Your task to perform on an android device: Search for Mexican restaurants on Maps Image 0: 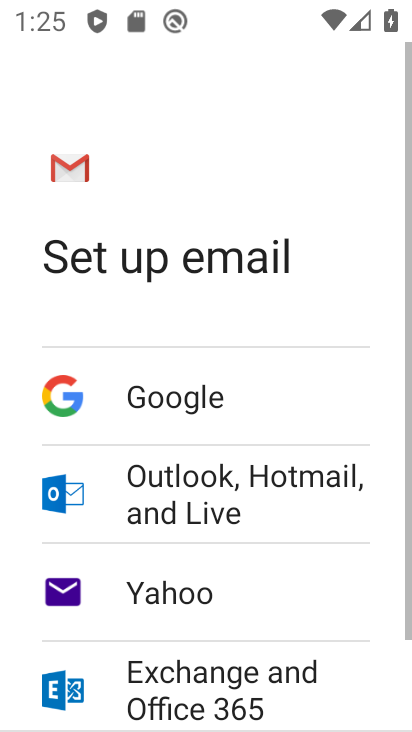
Step 0: press home button
Your task to perform on an android device: Search for Mexican restaurants on Maps Image 1: 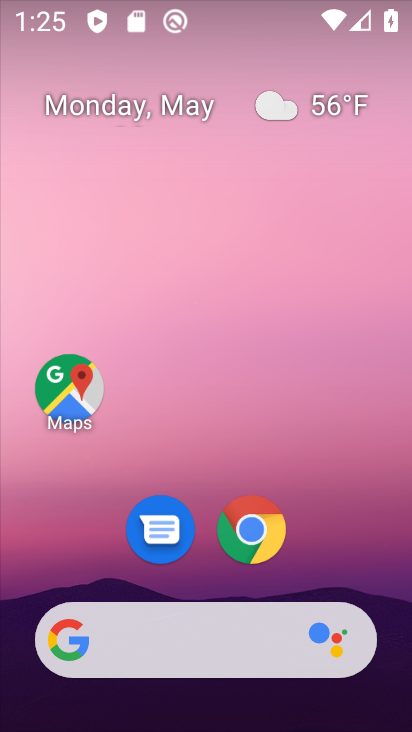
Step 1: drag from (197, 570) to (282, 14)
Your task to perform on an android device: Search for Mexican restaurants on Maps Image 2: 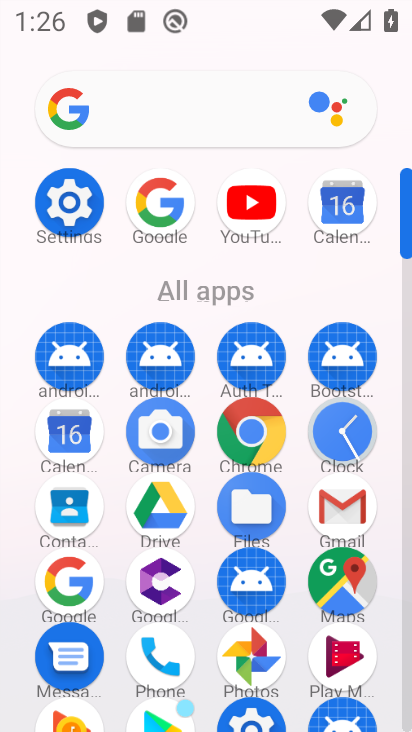
Step 2: click (348, 583)
Your task to perform on an android device: Search for Mexican restaurants on Maps Image 3: 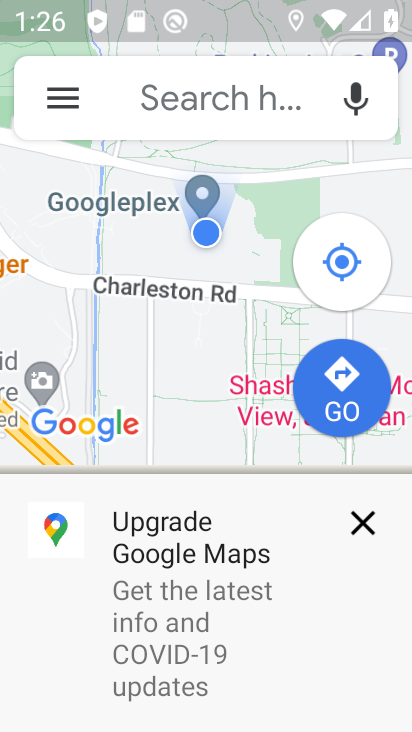
Step 3: click (175, 89)
Your task to perform on an android device: Search for Mexican restaurants on Maps Image 4: 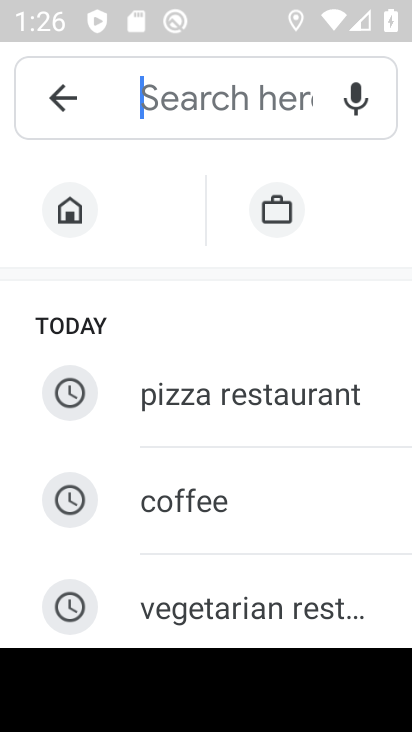
Step 4: type "mexican restaurants"
Your task to perform on an android device: Search for Mexican restaurants on Maps Image 5: 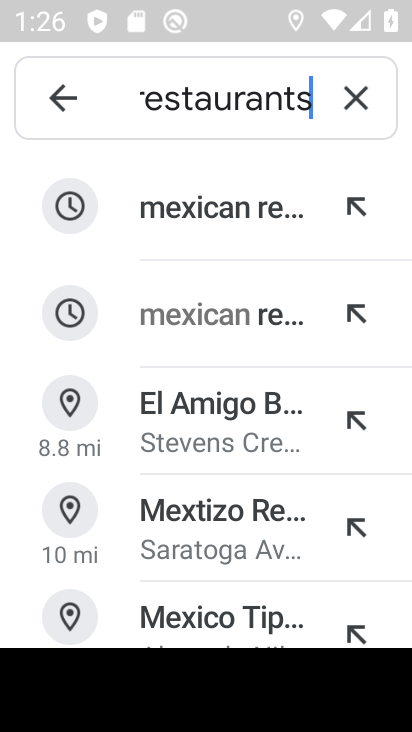
Step 5: click (172, 206)
Your task to perform on an android device: Search for Mexican restaurants on Maps Image 6: 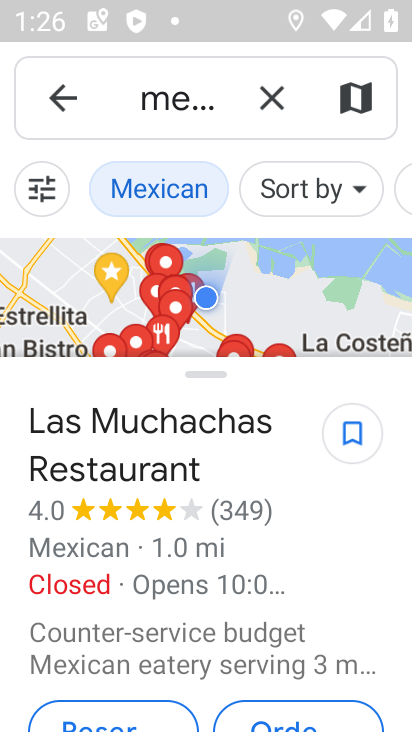
Step 6: task complete